Your task to perform on an android device: Open a new window in the chrome app Image 0: 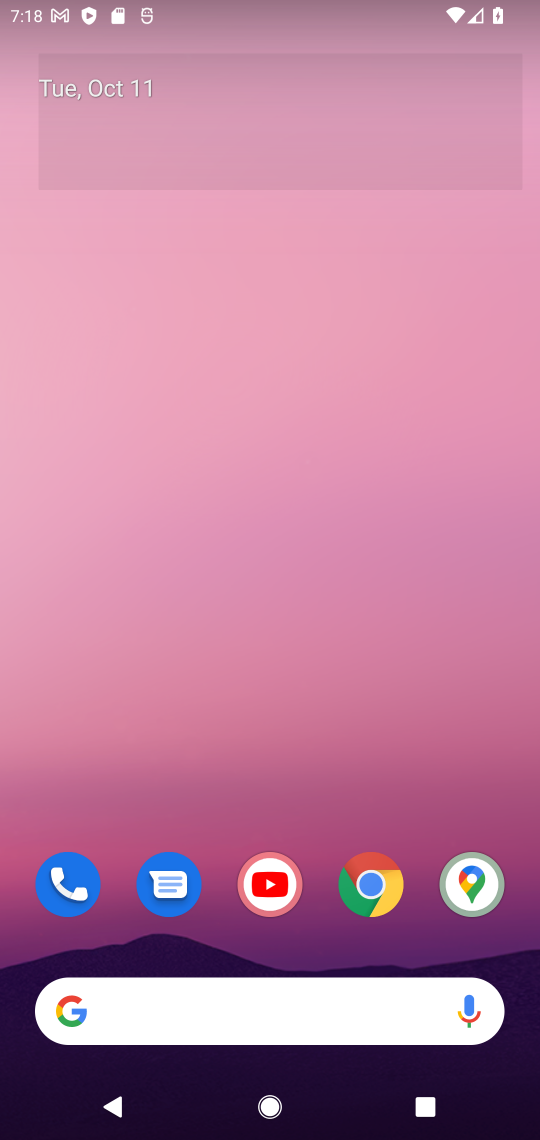
Step 0: click (374, 871)
Your task to perform on an android device: Open a new window in the chrome app Image 1: 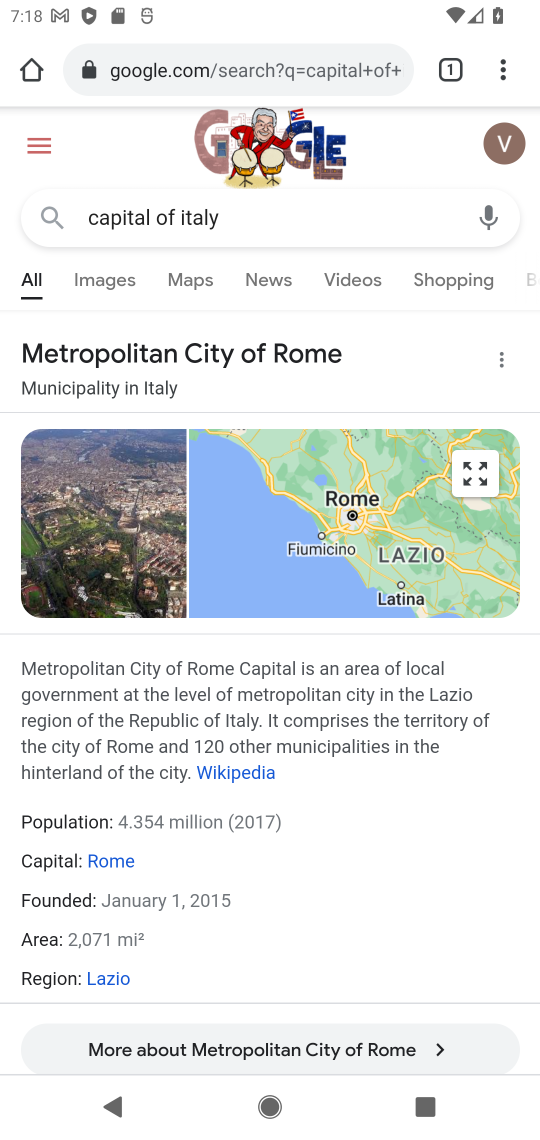
Step 1: click (507, 75)
Your task to perform on an android device: Open a new window in the chrome app Image 2: 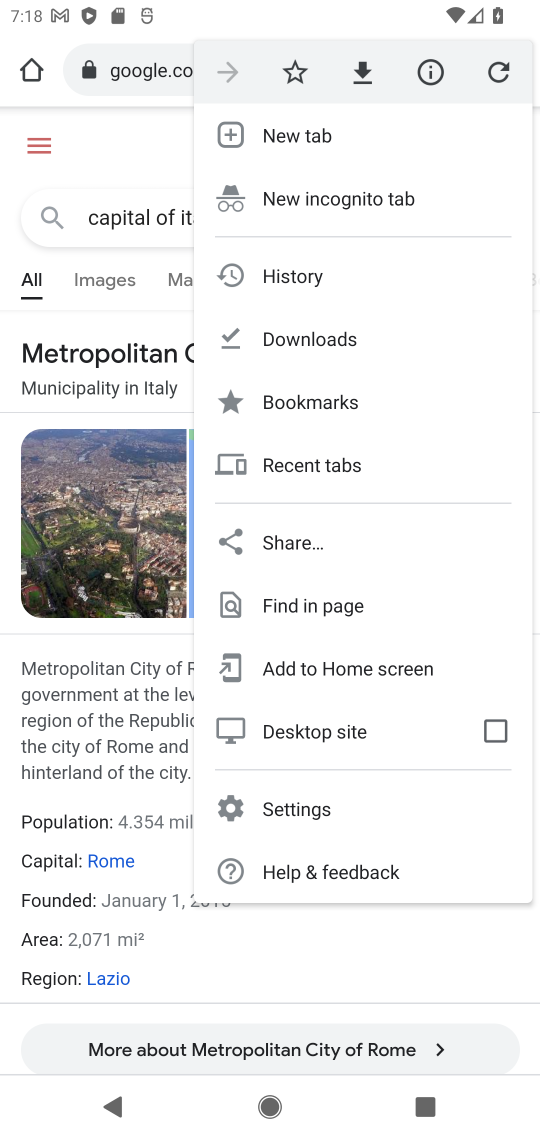
Step 2: click (352, 135)
Your task to perform on an android device: Open a new window in the chrome app Image 3: 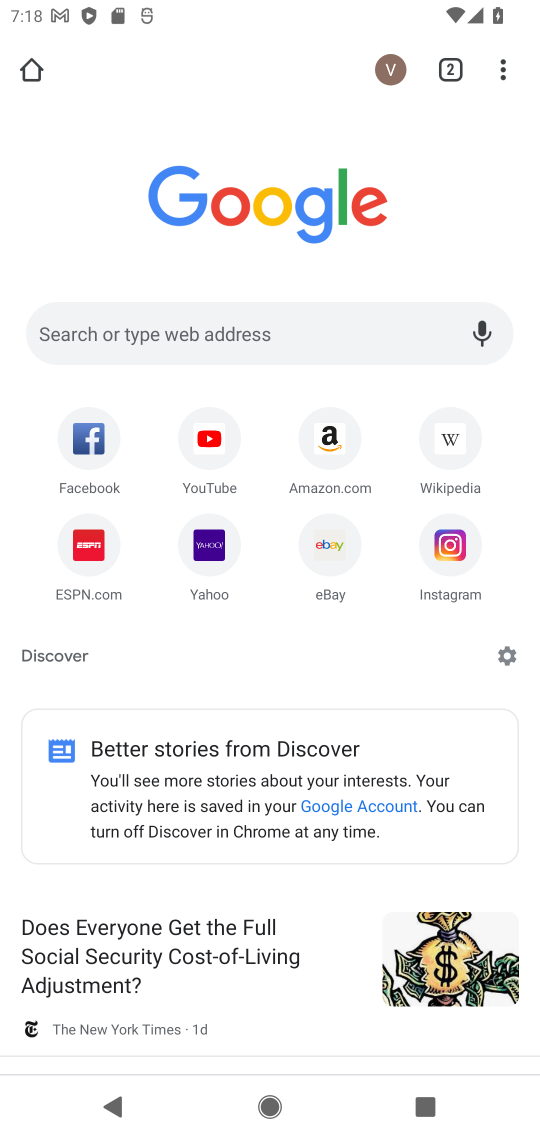
Step 3: task complete